Your task to perform on an android device: Turn off the flashlight Image 0: 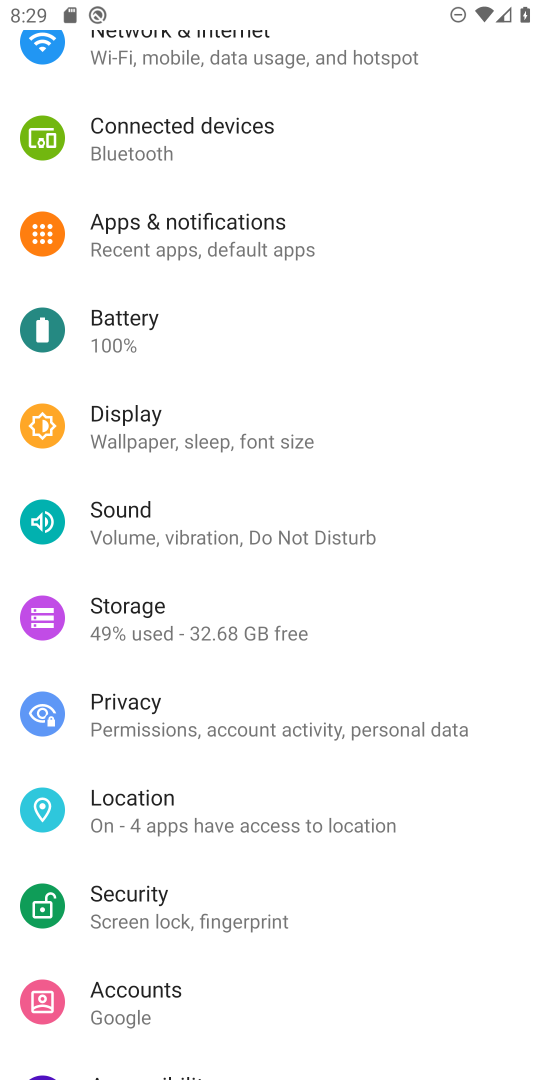
Step 0: task impossible